Your task to perform on an android device: turn on javascript in the chrome app Image 0: 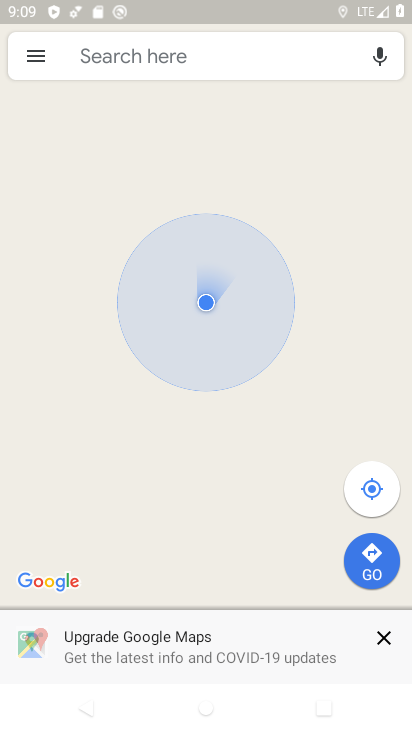
Step 0: press home button
Your task to perform on an android device: turn on javascript in the chrome app Image 1: 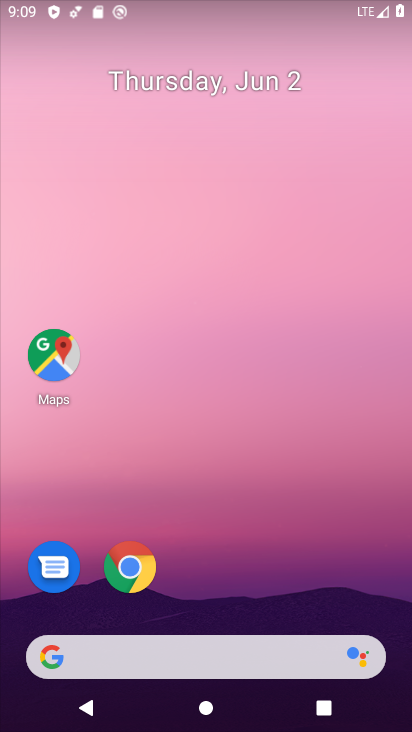
Step 1: drag from (331, 556) to (337, 81)
Your task to perform on an android device: turn on javascript in the chrome app Image 2: 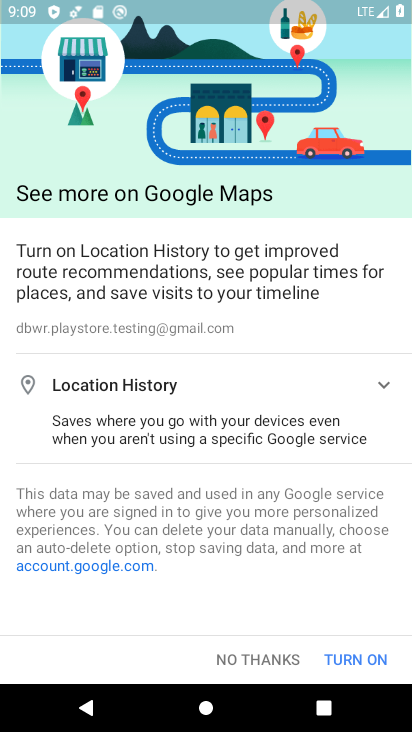
Step 2: click (280, 653)
Your task to perform on an android device: turn on javascript in the chrome app Image 3: 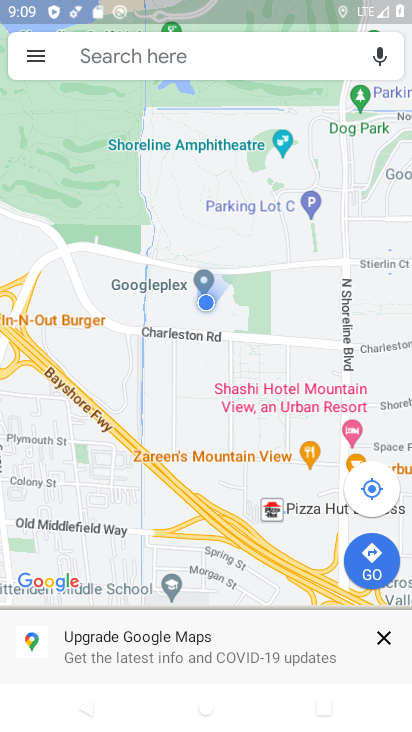
Step 3: press home button
Your task to perform on an android device: turn on javascript in the chrome app Image 4: 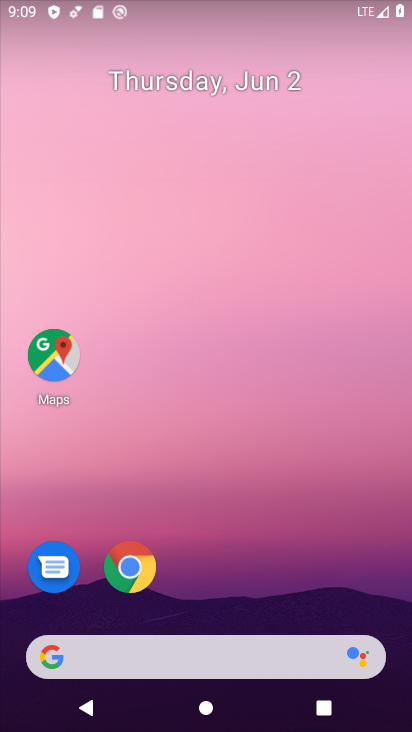
Step 4: drag from (357, 547) to (350, 178)
Your task to perform on an android device: turn on javascript in the chrome app Image 5: 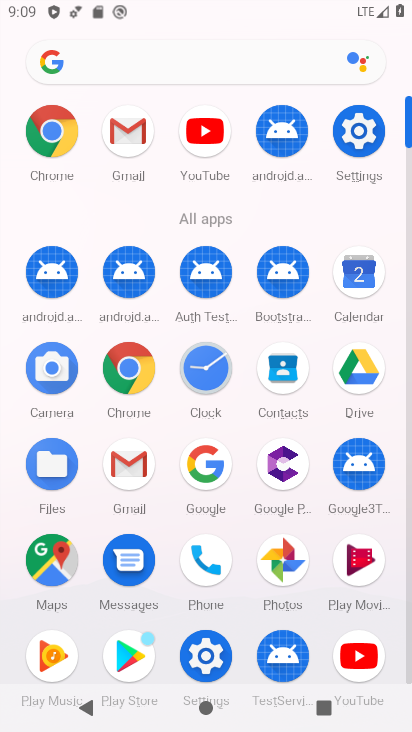
Step 5: click (143, 383)
Your task to perform on an android device: turn on javascript in the chrome app Image 6: 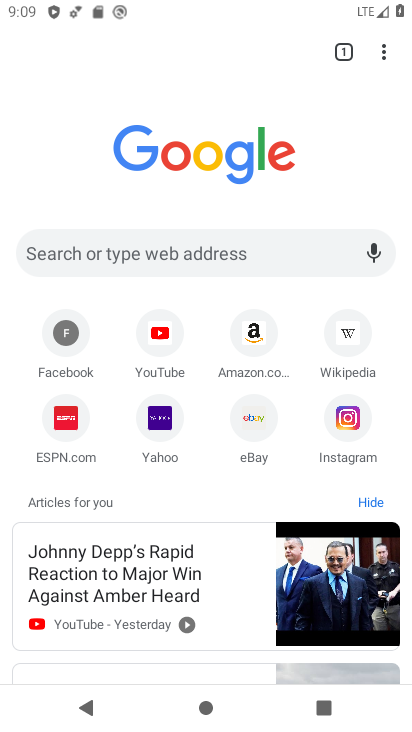
Step 6: drag from (378, 50) to (258, 460)
Your task to perform on an android device: turn on javascript in the chrome app Image 7: 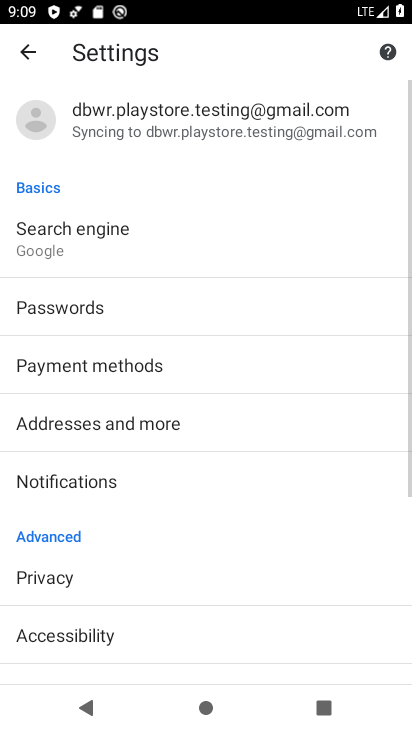
Step 7: drag from (224, 610) to (249, 260)
Your task to perform on an android device: turn on javascript in the chrome app Image 8: 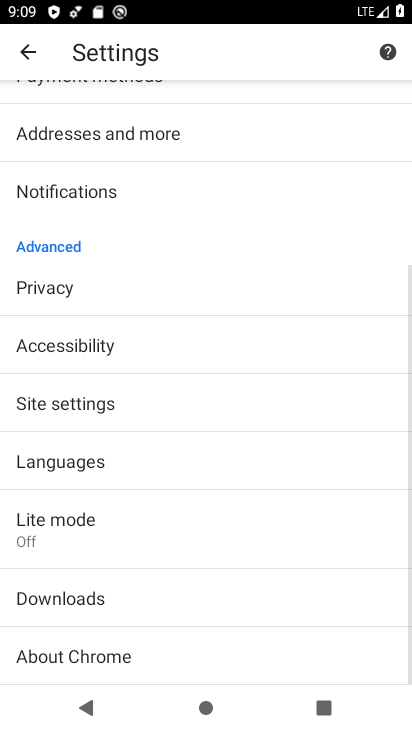
Step 8: drag from (197, 504) to (235, 239)
Your task to perform on an android device: turn on javascript in the chrome app Image 9: 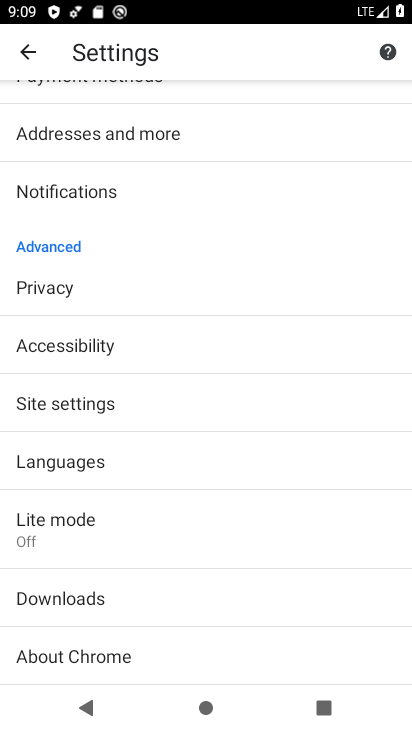
Step 9: click (97, 392)
Your task to perform on an android device: turn on javascript in the chrome app Image 10: 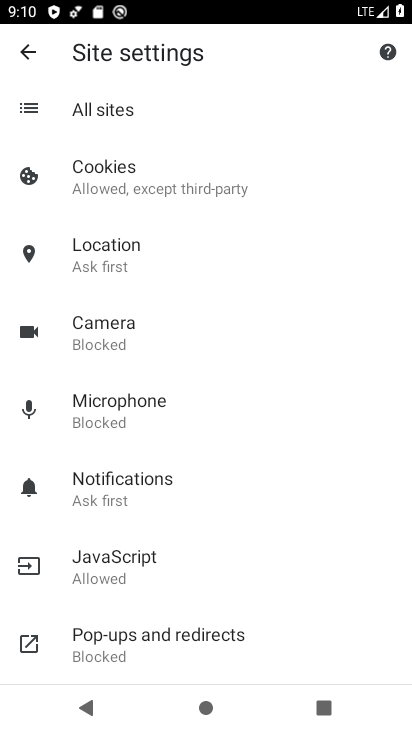
Step 10: click (139, 558)
Your task to perform on an android device: turn on javascript in the chrome app Image 11: 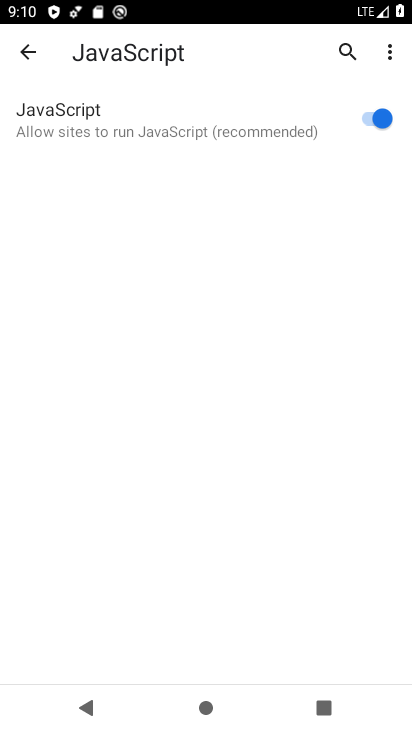
Step 11: task complete